Your task to perform on an android device: Open Chrome and go to the settings page Image 0: 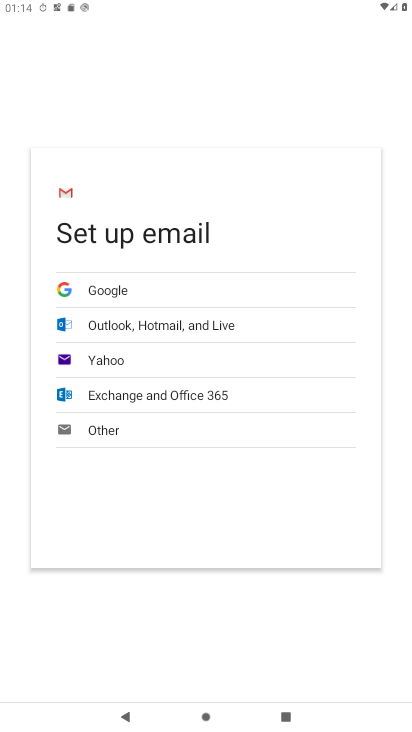
Step 0: press home button
Your task to perform on an android device: Open Chrome and go to the settings page Image 1: 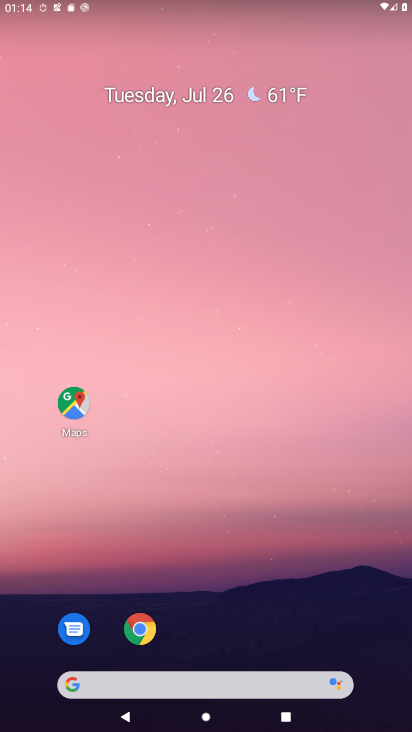
Step 1: click (159, 633)
Your task to perform on an android device: Open Chrome and go to the settings page Image 2: 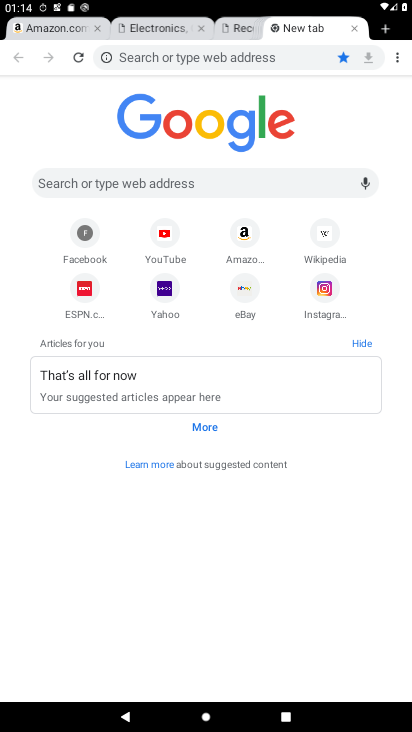
Step 2: task complete